Your task to perform on an android device: turn on location history Image 0: 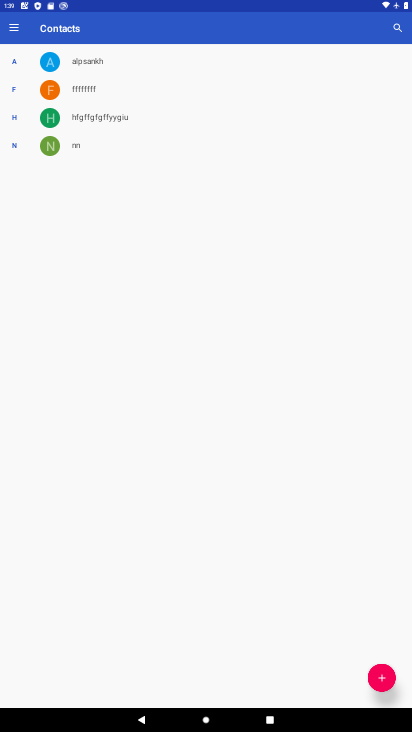
Step 0: drag from (328, 602) to (304, 353)
Your task to perform on an android device: turn on location history Image 1: 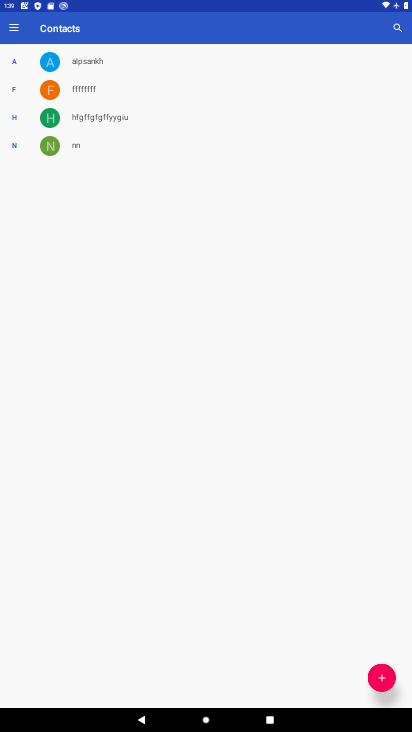
Step 1: press home button
Your task to perform on an android device: turn on location history Image 2: 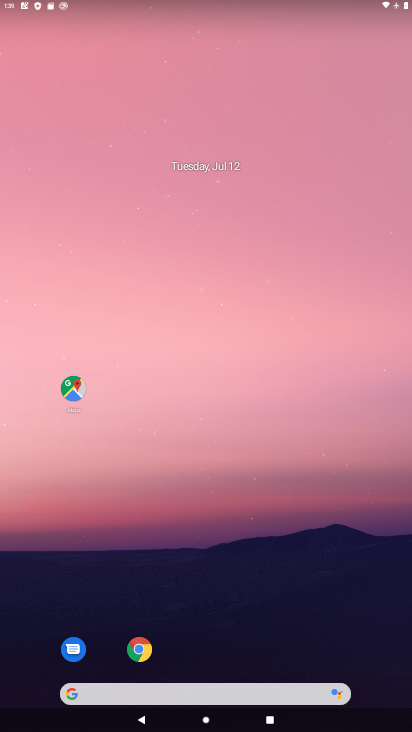
Step 2: drag from (271, 638) to (176, 101)
Your task to perform on an android device: turn on location history Image 3: 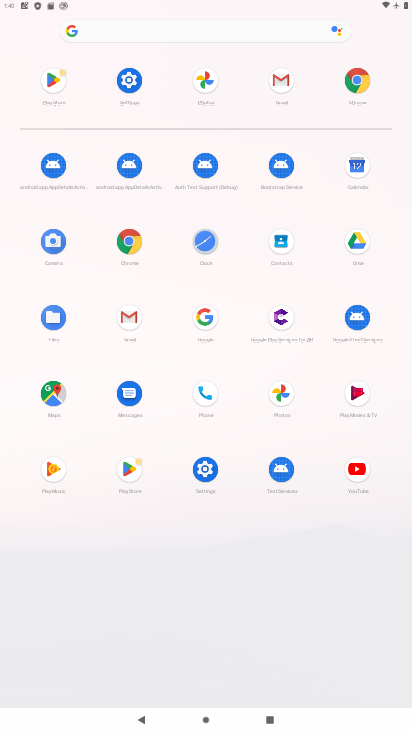
Step 3: click (131, 88)
Your task to perform on an android device: turn on location history Image 4: 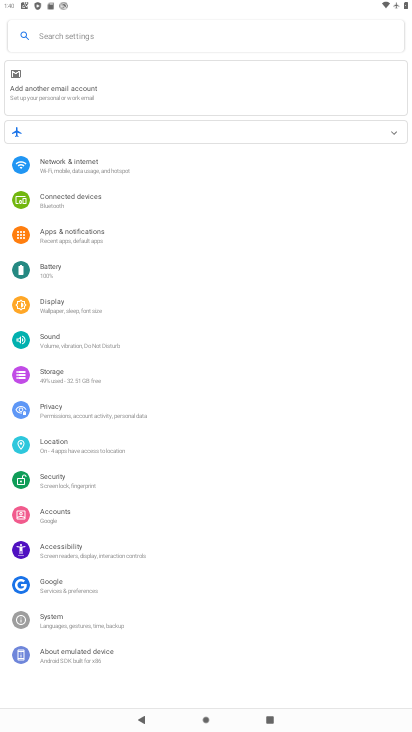
Step 4: click (96, 234)
Your task to perform on an android device: turn on location history Image 5: 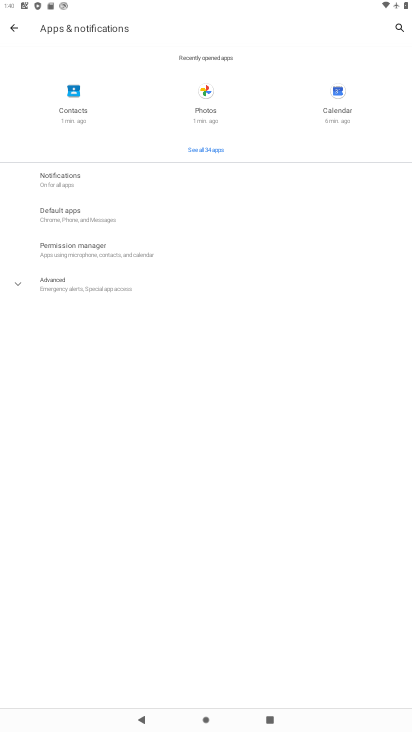
Step 5: click (14, 30)
Your task to perform on an android device: turn on location history Image 6: 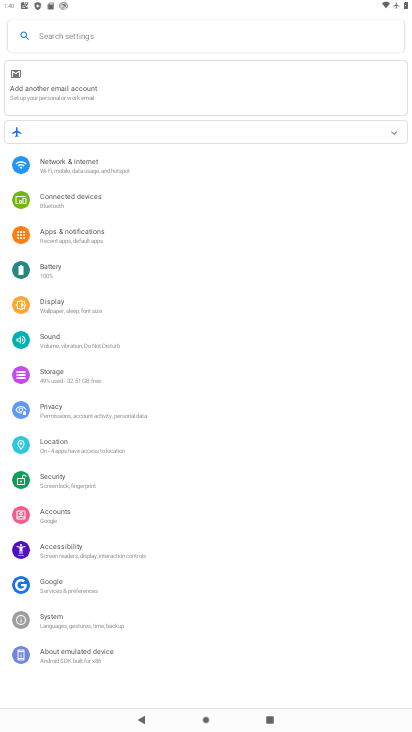
Step 6: click (82, 443)
Your task to perform on an android device: turn on location history Image 7: 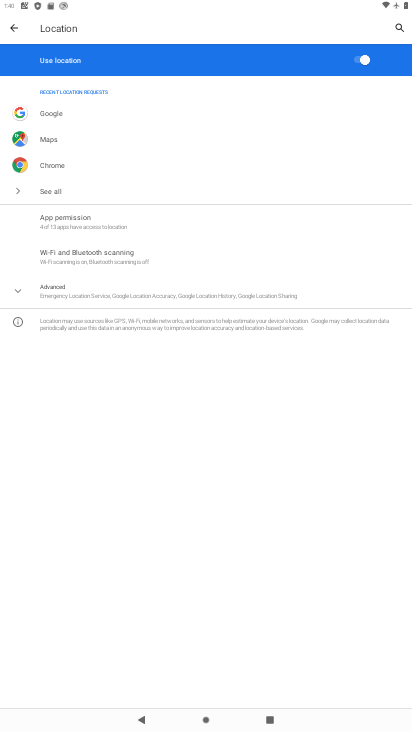
Step 7: task complete